Your task to perform on an android device: allow notifications from all sites in the chrome app Image 0: 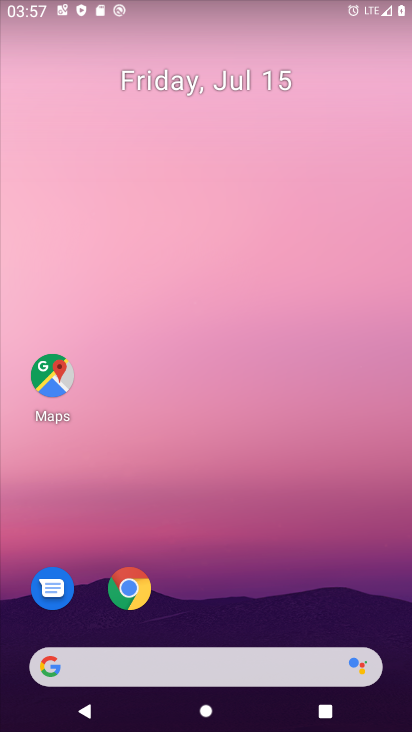
Step 0: click (129, 588)
Your task to perform on an android device: allow notifications from all sites in the chrome app Image 1: 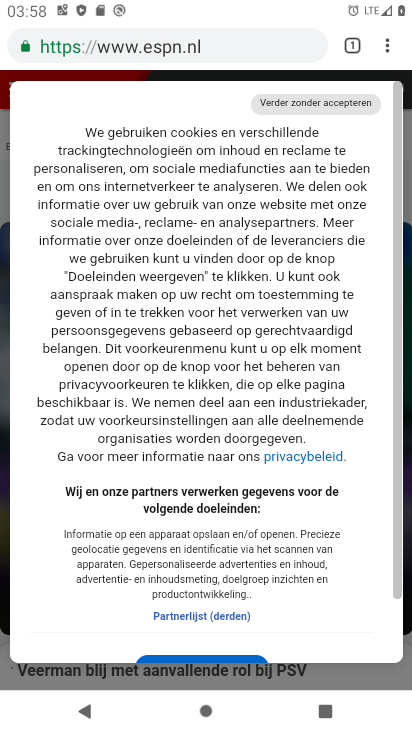
Step 1: click (389, 46)
Your task to perform on an android device: allow notifications from all sites in the chrome app Image 2: 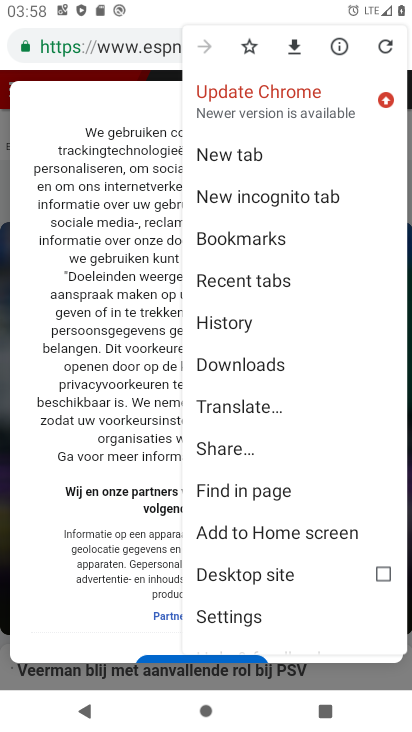
Step 2: click (242, 616)
Your task to perform on an android device: allow notifications from all sites in the chrome app Image 3: 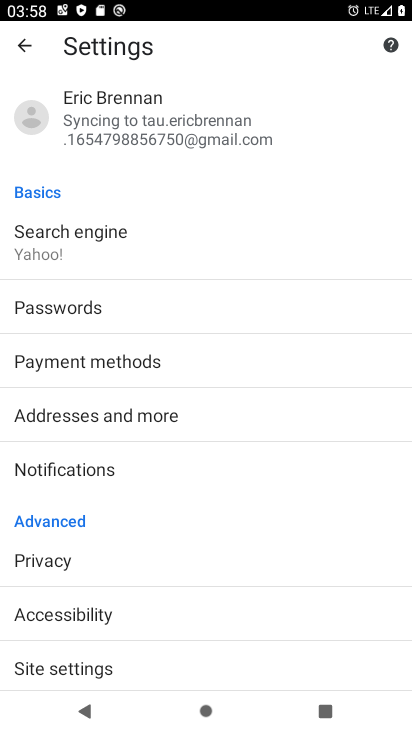
Step 3: drag from (143, 579) to (248, 468)
Your task to perform on an android device: allow notifications from all sites in the chrome app Image 4: 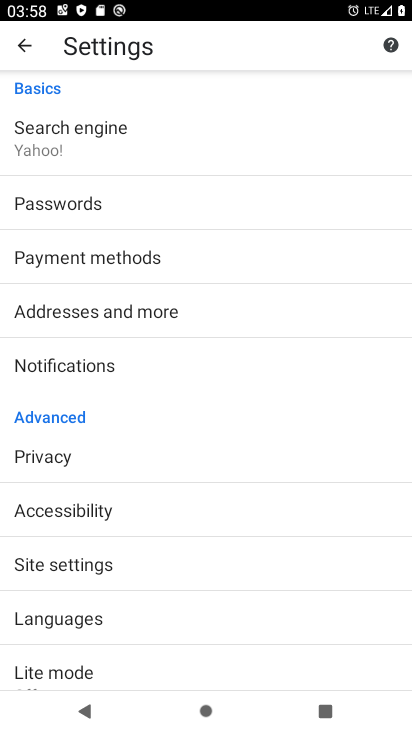
Step 4: click (102, 554)
Your task to perform on an android device: allow notifications from all sites in the chrome app Image 5: 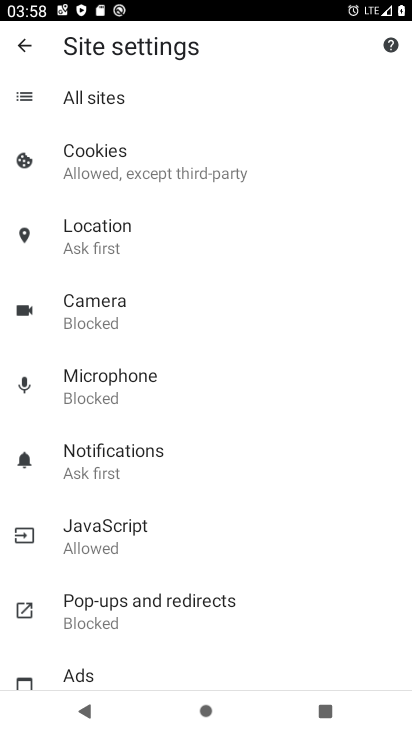
Step 5: click (121, 455)
Your task to perform on an android device: allow notifications from all sites in the chrome app Image 6: 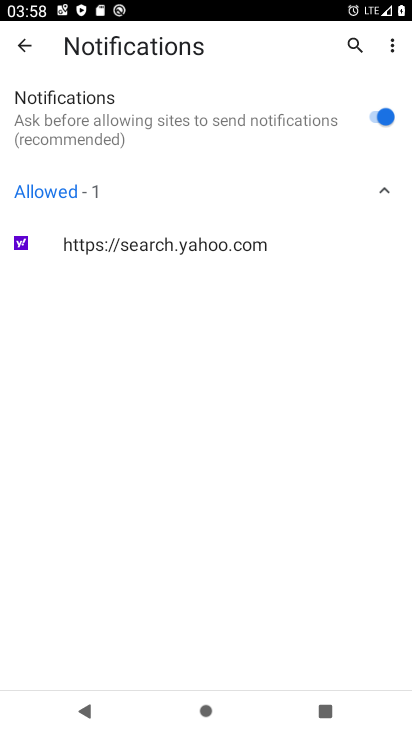
Step 6: task complete